Your task to perform on an android device: Open calendar and show me the third week of next month Image 0: 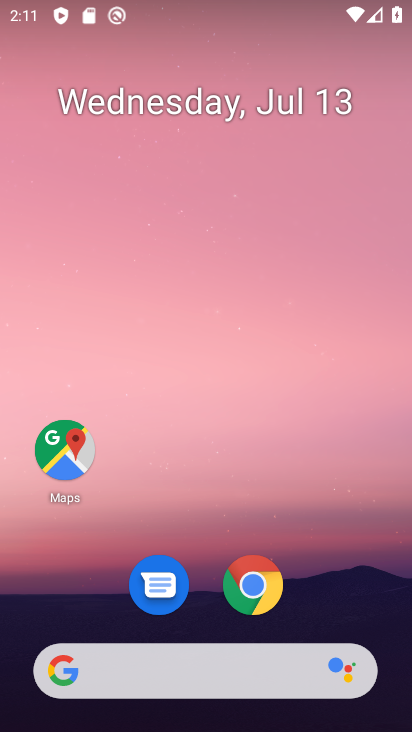
Step 0: press home button
Your task to perform on an android device: Open calendar and show me the third week of next month Image 1: 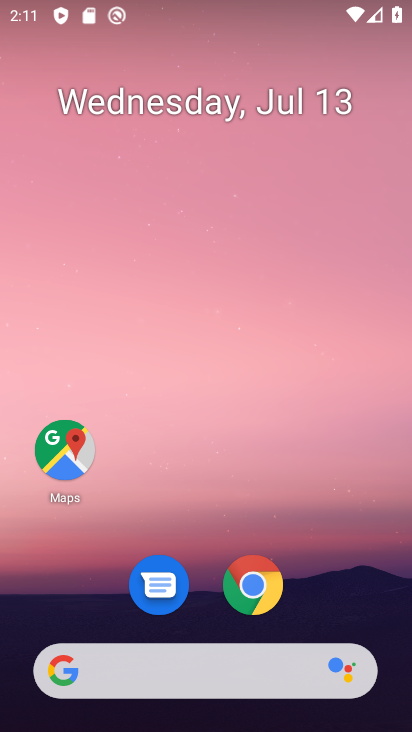
Step 1: drag from (154, 677) to (240, 157)
Your task to perform on an android device: Open calendar and show me the third week of next month Image 2: 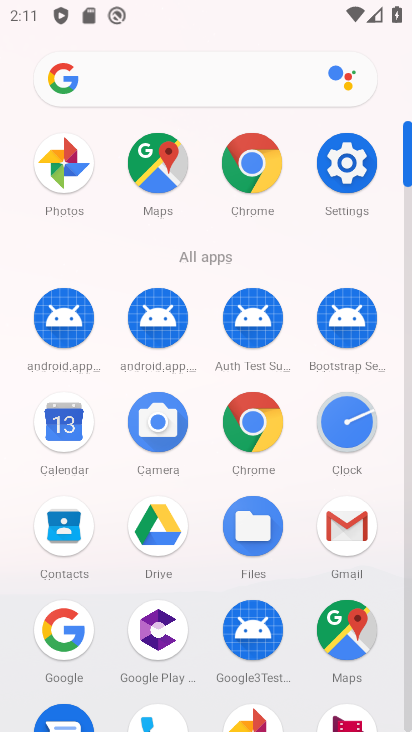
Step 2: click (62, 424)
Your task to perform on an android device: Open calendar and show me the third week of next month Image 3: 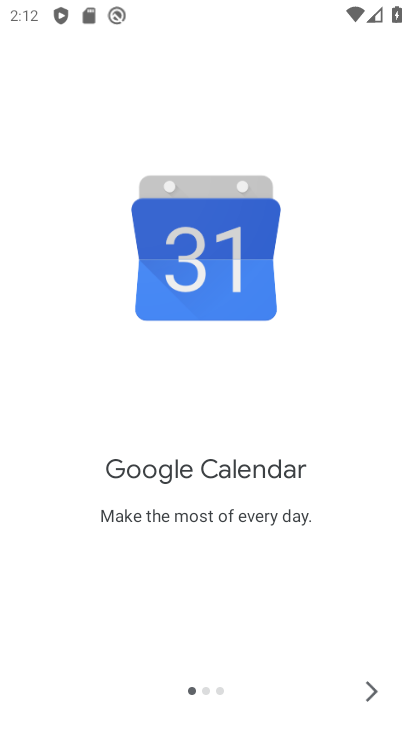
Step 3: click (370, 689)
Your task to perform on an android device: Open calendar and show me the third week of next month Image 4: 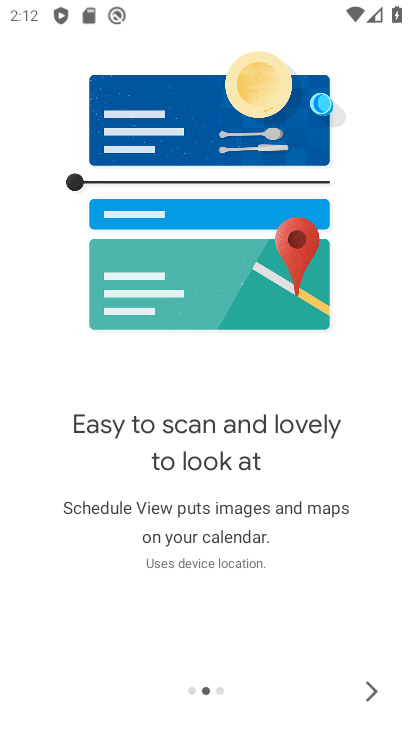
Step 4: click (370, 689)
Your task to perform on an android device: Open calendar and show me the third week of next month Image 5: 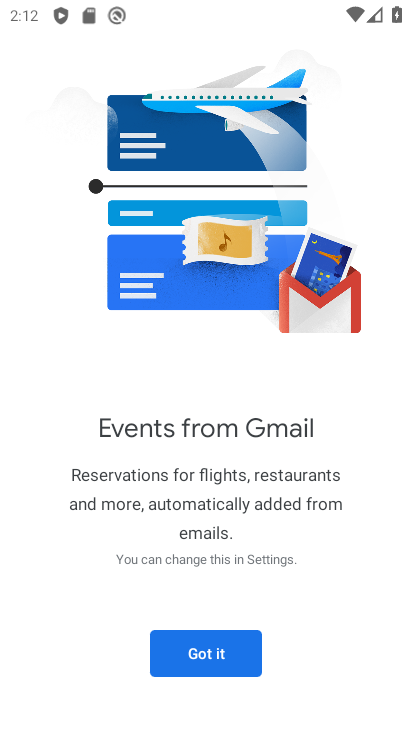
Step 5: click (215, 651)
Your task to perform on an android device: Open calendar and show me the third week of next month Image 6: 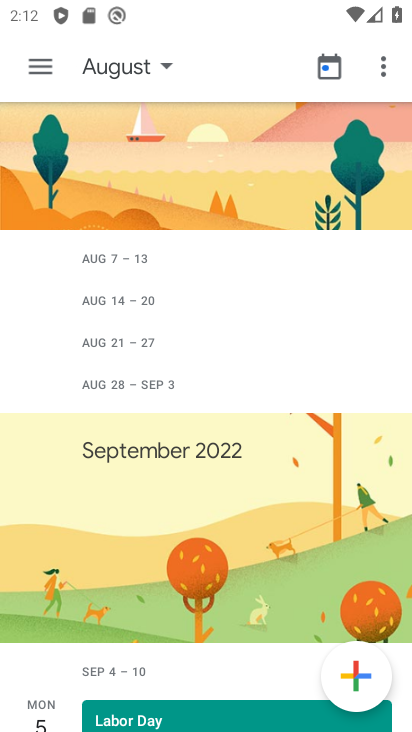
Step 6: click (123, 66)
Your task to perform on an android device: Open calendar and show me the third week of next month Image 7: 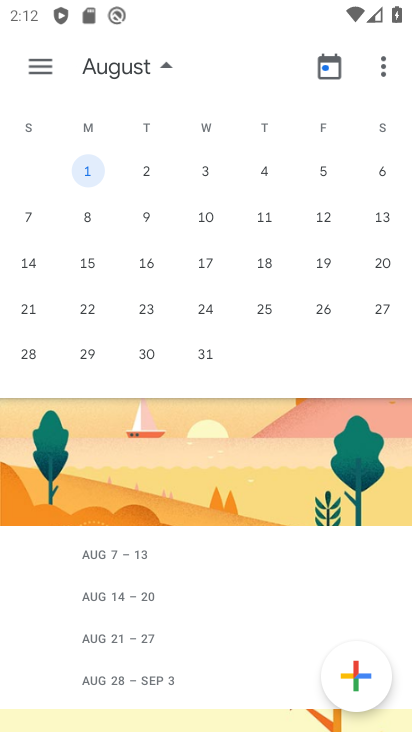
Step 7: click (31, 269)
Your task to perform on an android device: Open calendar and show me the third week of next month Image 8: 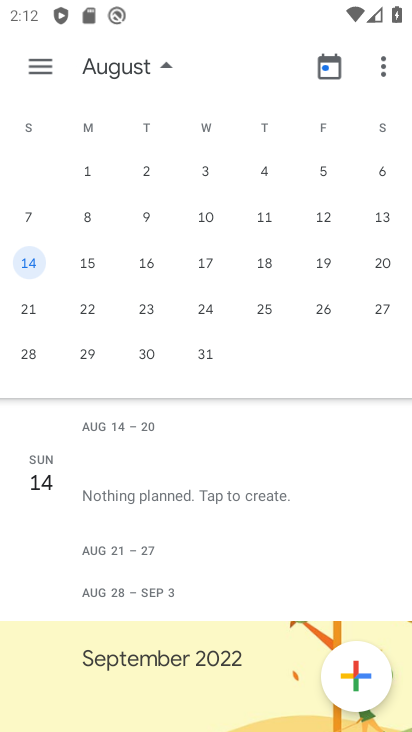
Step 8: click (46, 61)
Your task to perform on an android device: Open calendar and show me the third week of next month Image 9: 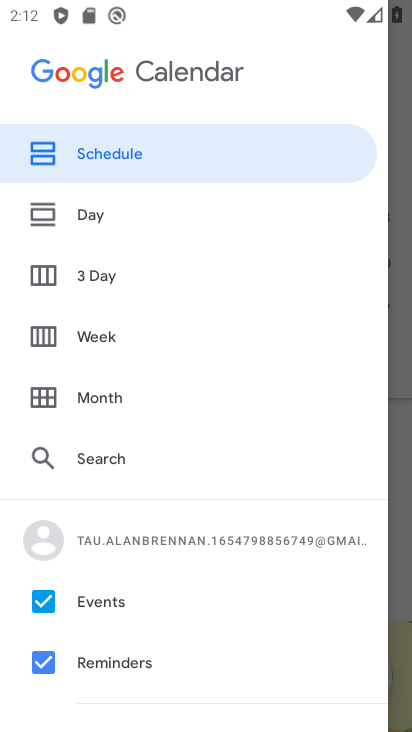
Step 9: click (90, 339)
Your task to perform on an android device: Open calendar and show me the third week of next month Image 10: 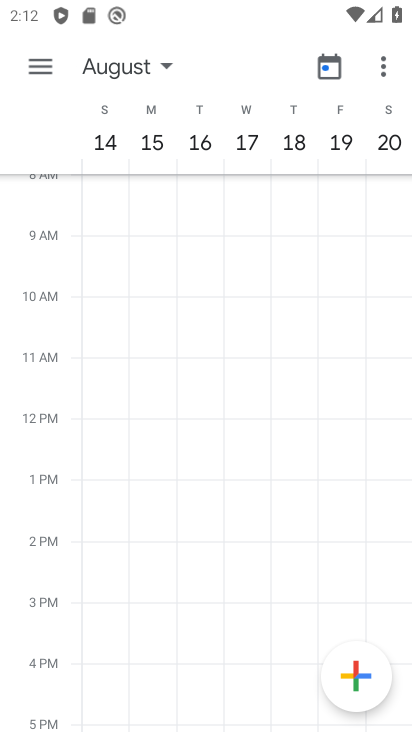
Step 10: task complete